Your task to perform on an android device: change the upload size in google photos Image 0: 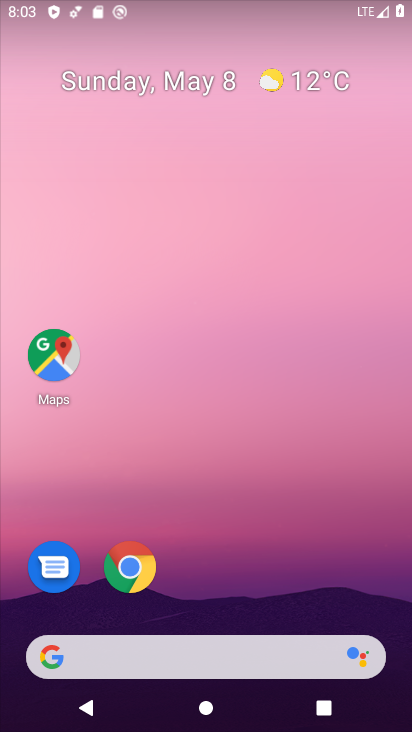
Step 0: drag from (198, 0) to (47, 13)
Your task to perform on an android device: change the upload size in google photos Image 1: 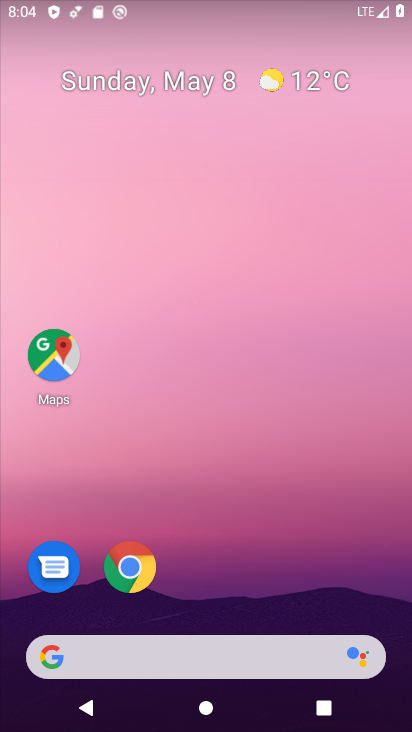
Step 1: drag from (218, 600) to (307, 41)
Your task to perform on an android device: change the upload size in google photos Image 2: 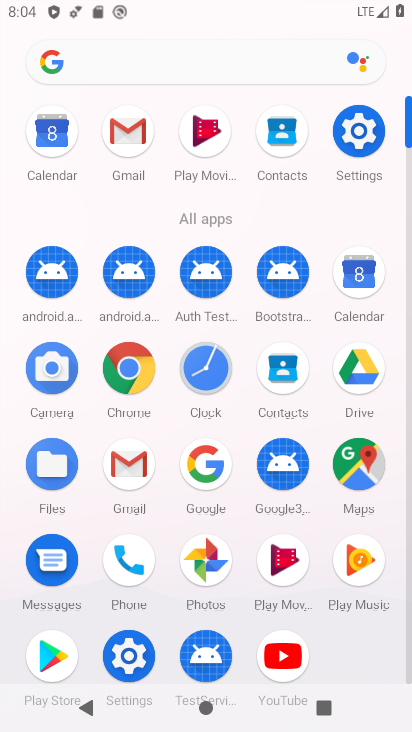
Step 2: click (209, 563)
Your task to perform on an android device: change the upload size in google photos Image 3: 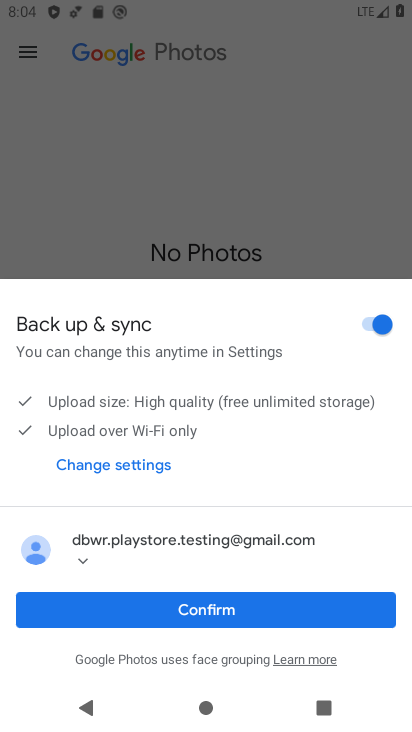
Step 3: click (201, 615)
Your task to perform on an android device: change the upload size in google photos Image 4: 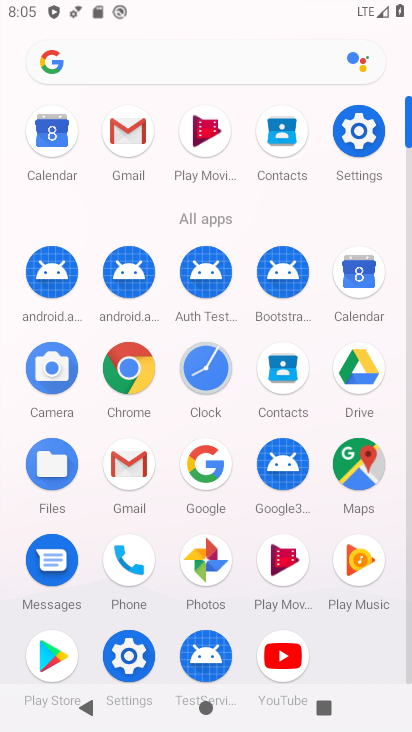
Step 4: click (222, 575)
Your task to perform on an android device: change the upload size in google photos Image 5: 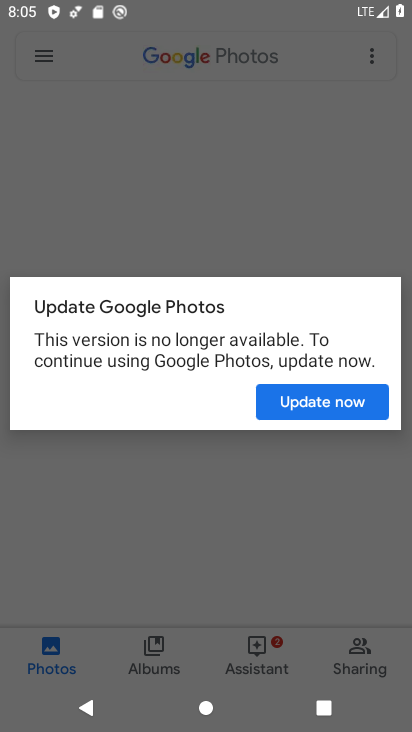
Step 5: click (347, 408)
Your task to perform on an android device: change the upload size in google photos Image 6: 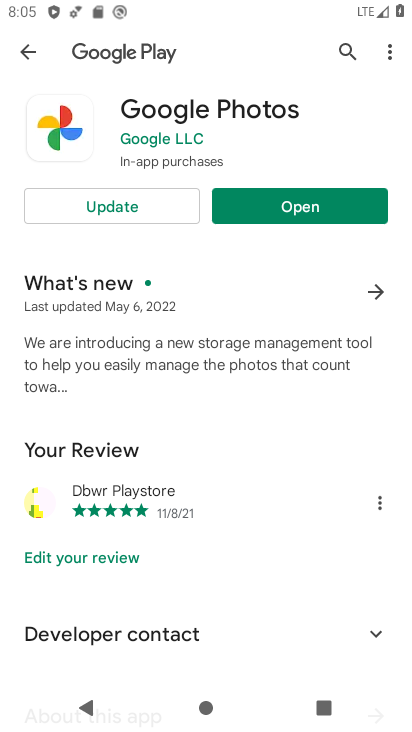
Step 6: click (126, 213)
Your task to perform on an android device: change the upload size in google photos Image 7: 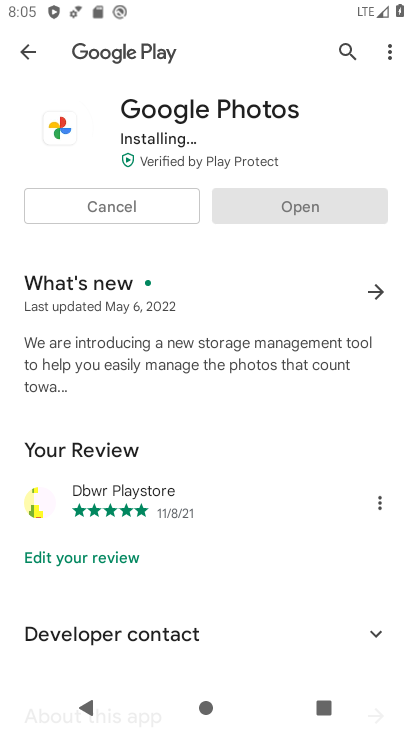
Step 7: drag from (204, 321) to (172, 3)
Your task to perform on an android device: change the upload size in google photos Image 8: 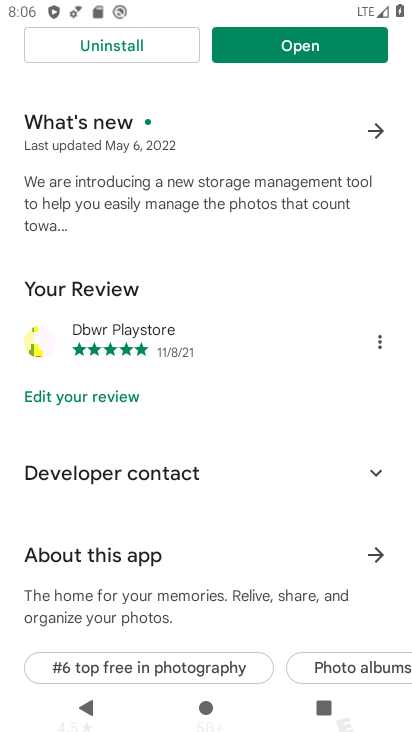
Step 8: click (251, 40)
Your task to perform on an android device: change the upload size in google photos Image 9: 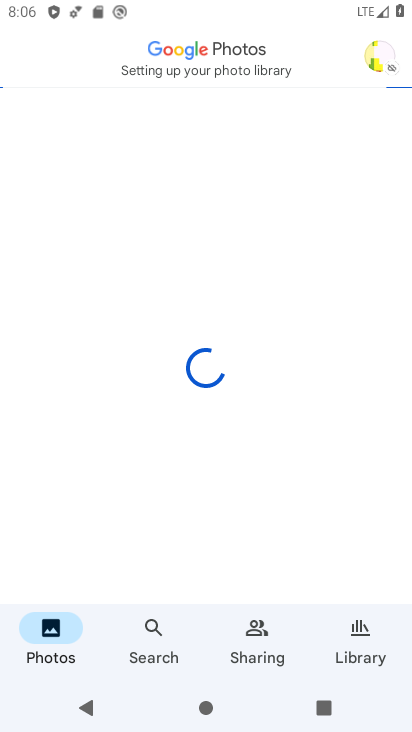
Step 9: click (372, 59)
Your task to perform on an android device: change the upload size in google photos Image 10: 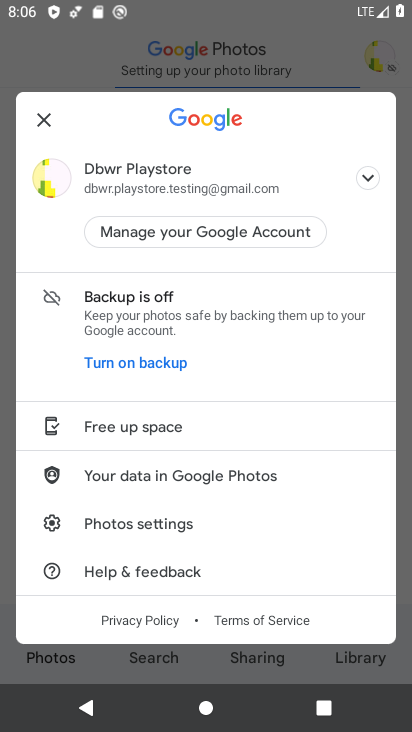
Step 10: click (141, 528)
Your task to perform on an android device: change the upload size in google photos Image 11: 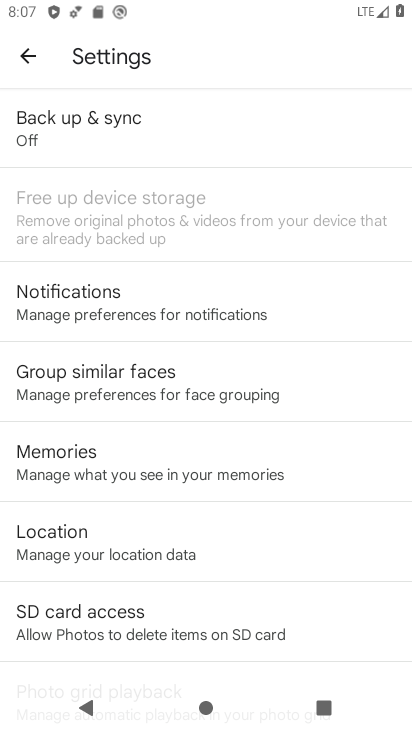
Step 11: click (157, 104)
Your task to perform on an android device: change the upload size in google photos Image 12: 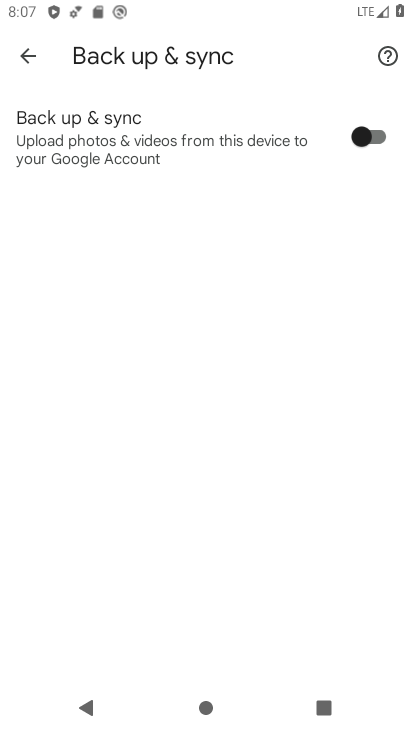
Step 12: click (385, 131)
Your task to perform on an android device: change the upload size in google photos Image 13: 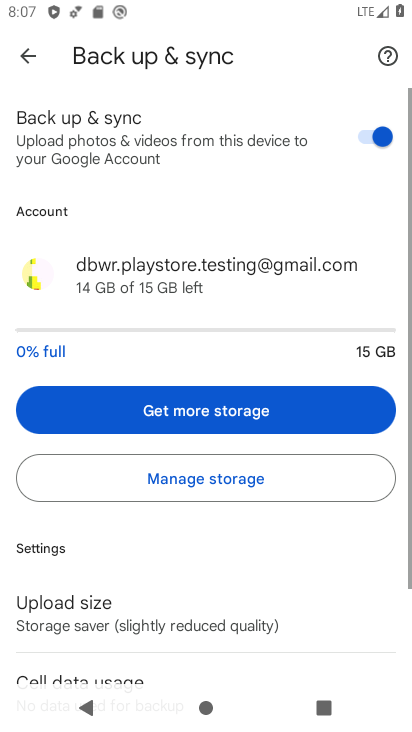
Step 13: drag from (145, 623) to (129, 76)
Your task to perform on an android device: change the upload size in google photos Image 14: 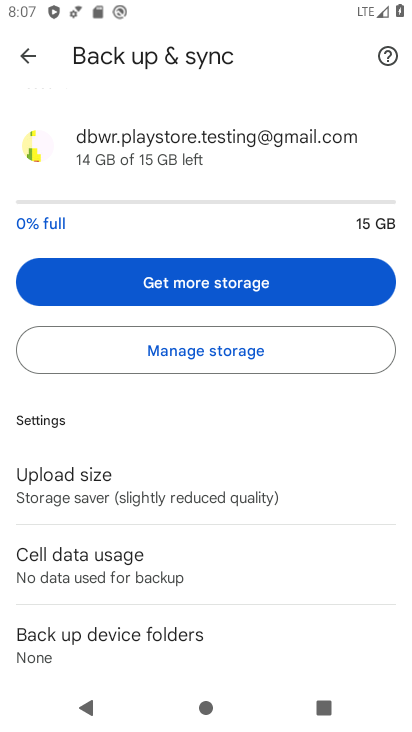
Step 14: click (129, 475)
Your task to perform on an android device: change the upload size in google photos Image 15: 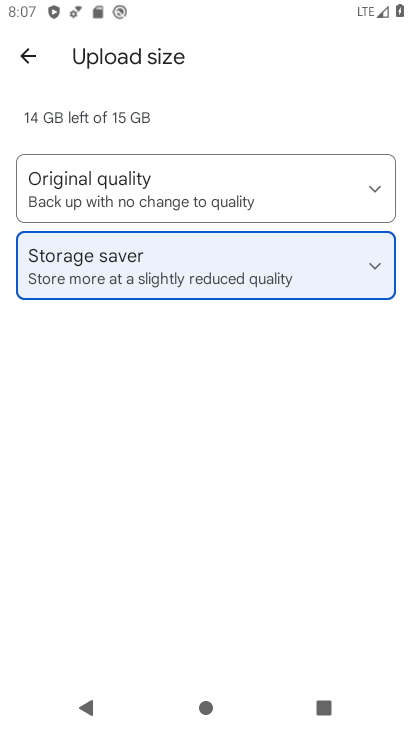
Step 15: click (200, 193)
Your task to perform on an android device: change the upload size in google photos Image 16: 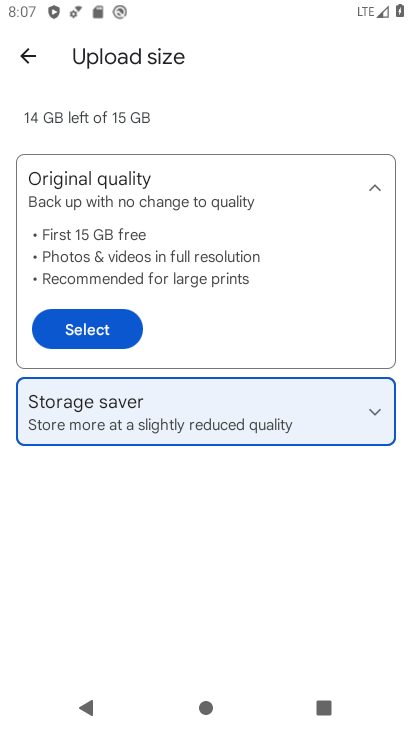
Step 16: click (97, 332)
Your task to perform on an android device: change the upload size in google photos Image 17: 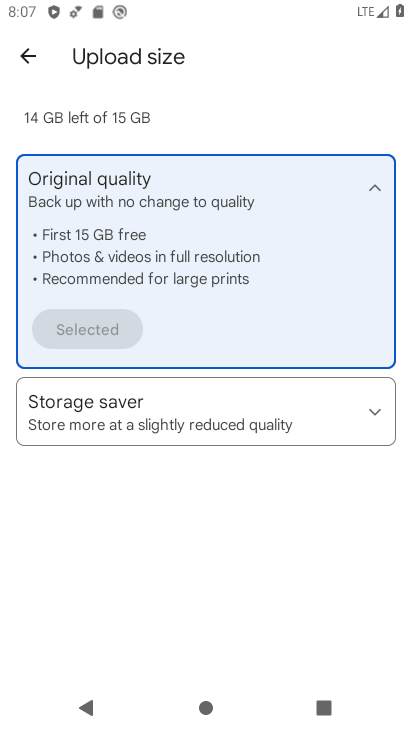
Step 17: task complete